Your task to perform on an android device: Search for Italian restaurants on Maps Image 0: 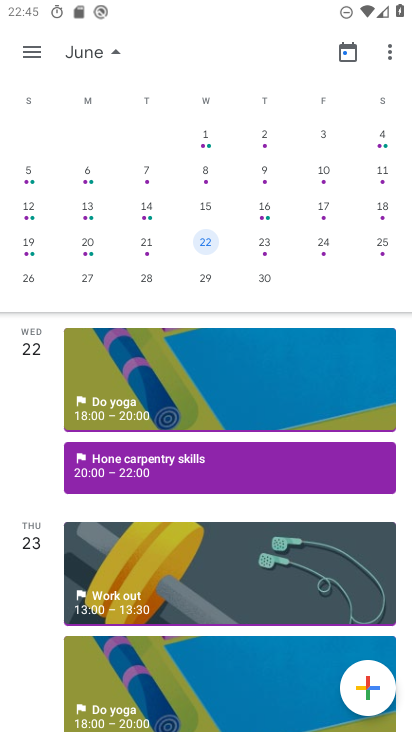
Step 0: press home button
Your task to perform on an android device: Search for Italian restaurants on Maps Image 1: 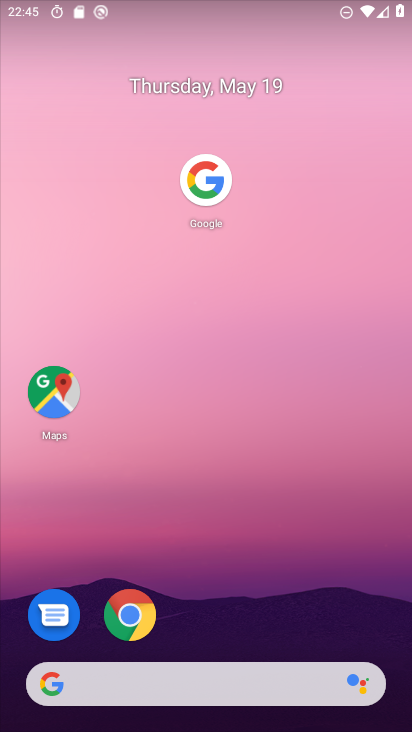
Step 1: click (60, 397)
Your task to perform on an android device: Search for Italian restaurants on Maps Image 2: 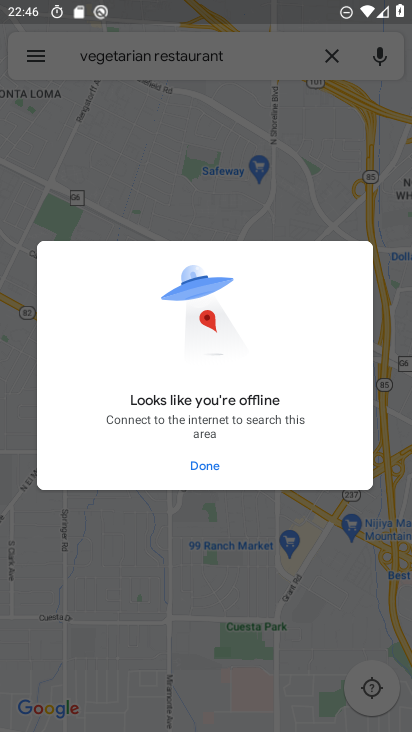
Step 2: press back button
Your task to perform on an android device: Search for Italian restaurants on Maps Image 3: 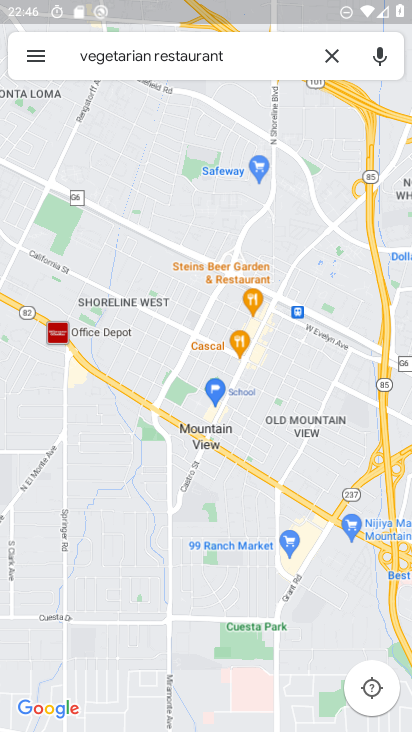
Step 3: click (329, 62)
Your task to perform on an android device: Search for Italian restaurants on Maps Image 4: 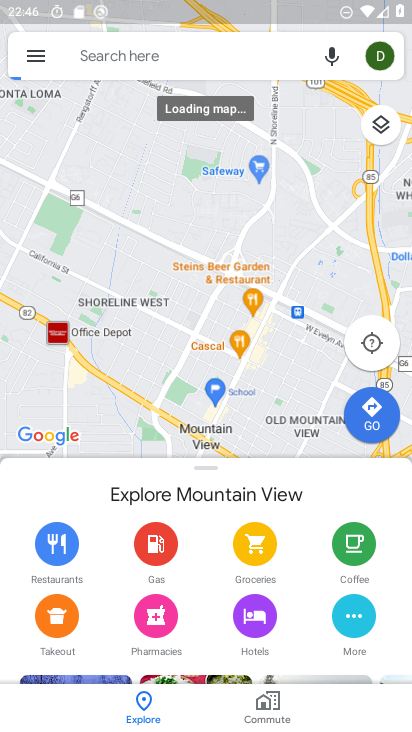
Step 4: click (148, 56)
Your task to perform on an android device: Search for Italian restaurants on Maps Image 5: 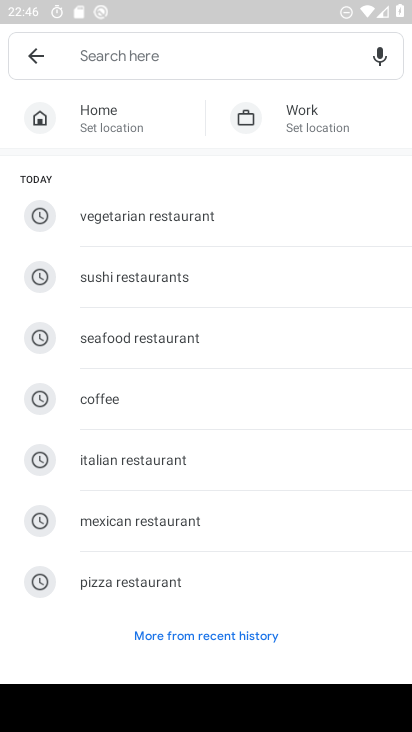
Step 5: click (150, 475)
Your task to perform on an android device: Search for Italian restaurants on Maps Image 6: 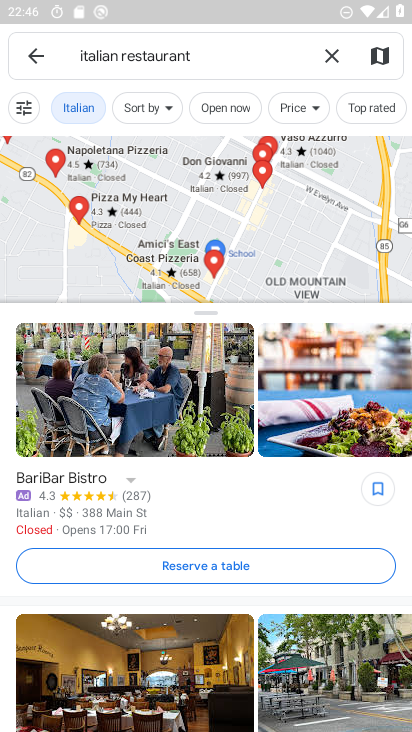
Step 6: task complete